Your task to perform on an android device: change the clock style Image 0: 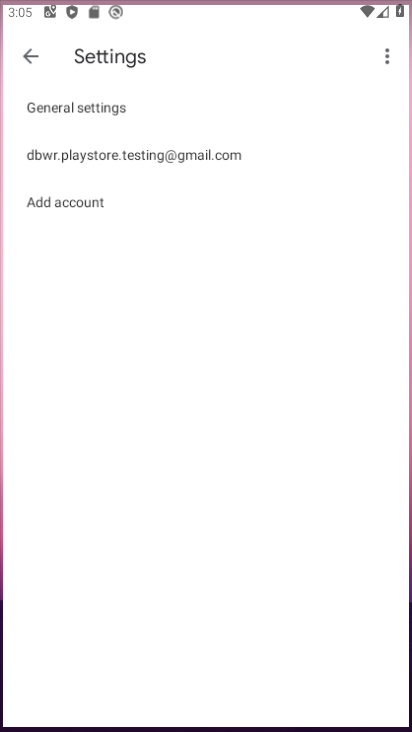
Step 0: press home button
Your task to perform on an android device: change the clock style Image 1: 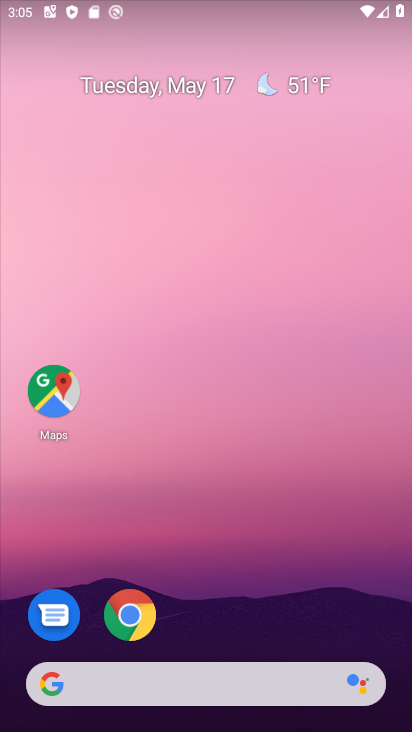
Step 1: drag from (218, 636) to (340, 219)
Your task to perform on an android device: change the clock style Image 2: 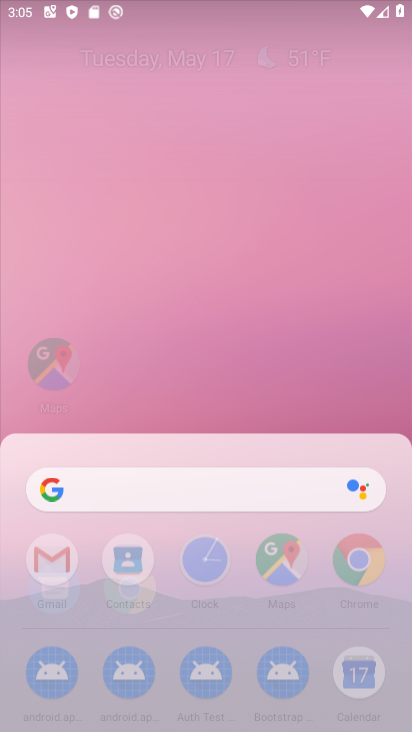
Step 2: click (377, 50)
Your task to perform on an android device: change the clock style Image 3: 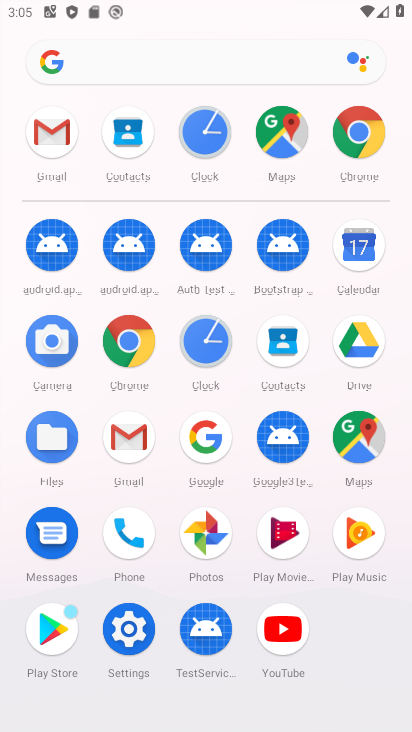
Step 3: click (206, 337)
Your task to perform on an android device: change the clock style Image 4: 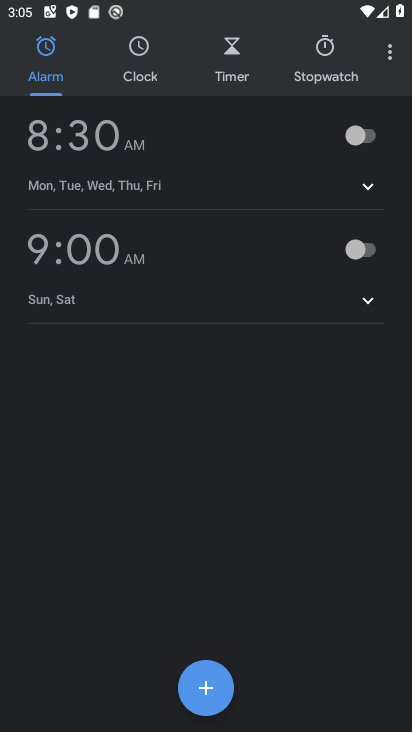
Step 4: click (389, 65)
Your task to perform on an android device: change the clock style Image 5: 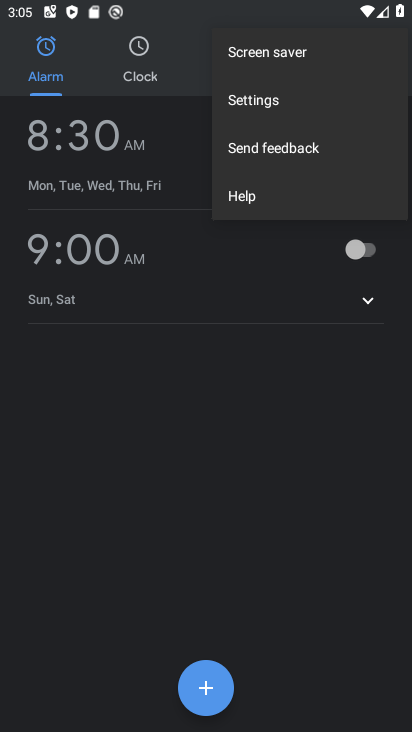
Step 5: click (287, 92)
Your task to perform on an android device: change the clock style Image 6: 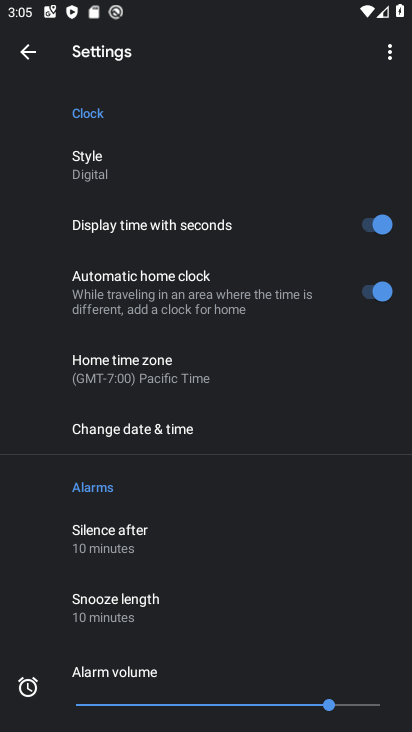
Step 6: click (126, 172)
Your task to perform on an android device: change the clock style Image 7: 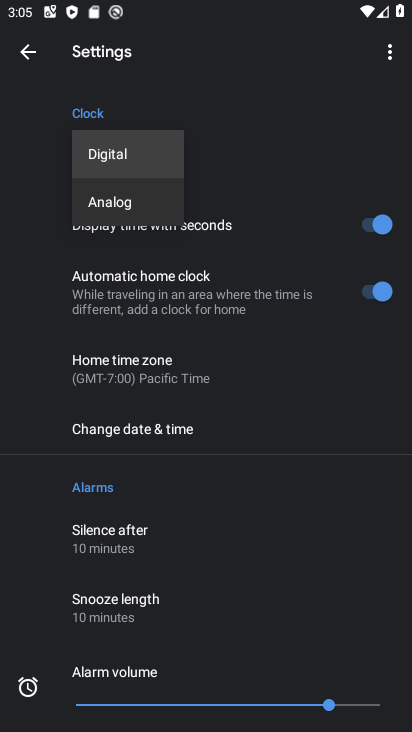
Step 7: click (166, 200)
Your task to perform on an android device: change the clock style Image 8: 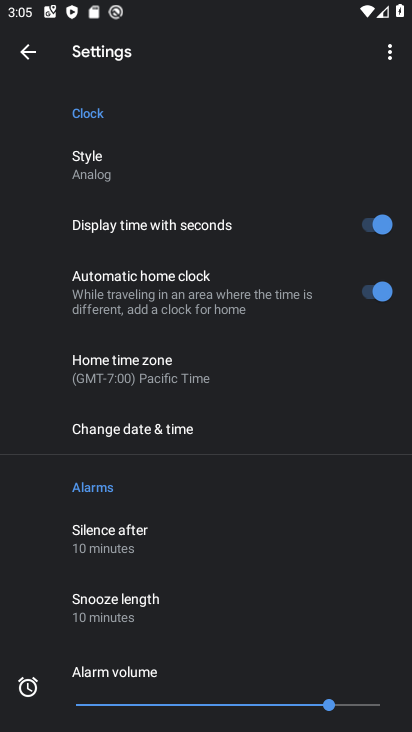
Step 8: task complete